Your task to perform on an android device: Show me popular videos on Youtube Image 0: 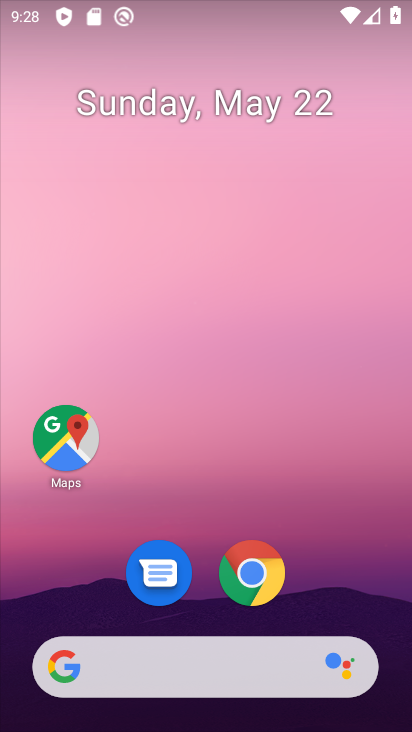
Step 0: drag from (340, 588) to (316, 254)
Your task to perform on an android device: Show me popular videos on Youtube Image 1: 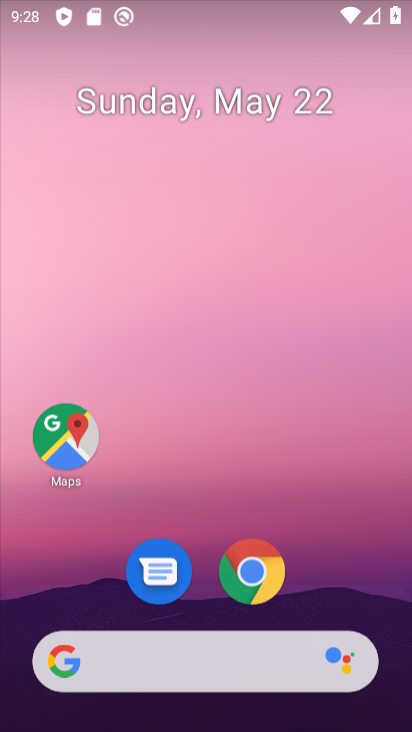
Step 1: drag from (392, 290) to (407, 332)
Your task to perform on an android device: Show me popular videos on Youtube Image 2: 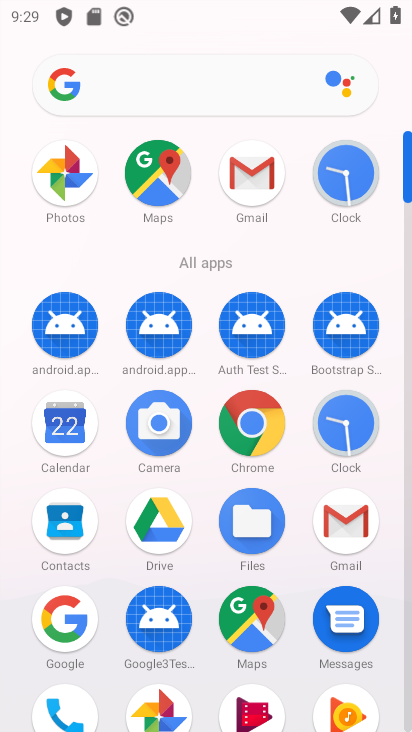
Step 2: click (408, 723)
Your task to perform on an android device: Show me popular videos on Youtube Image 3: 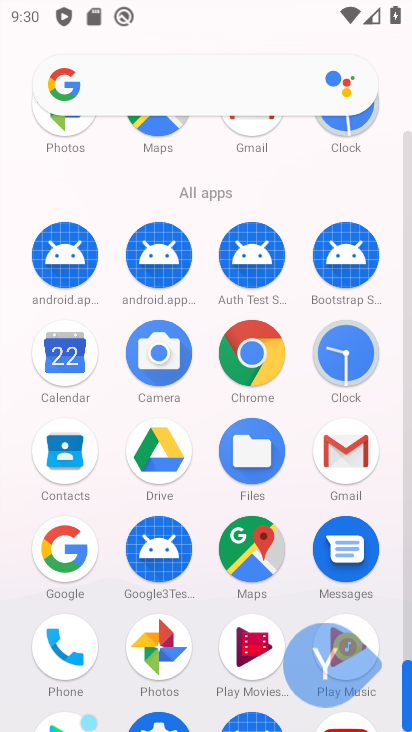
Step 3: click (408, 723)
Your task to perform on an android device: Show me popular videos on Youtube Image 4: 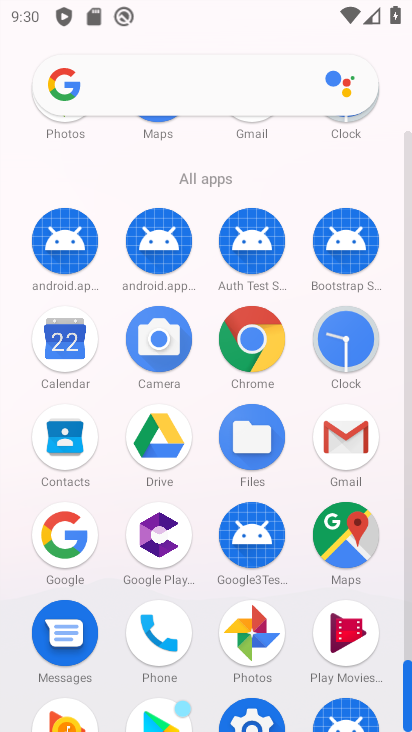
Step 4: click (340, 716)
Your task to perform on an android device: Show me popular videos on Youtube Image 5: 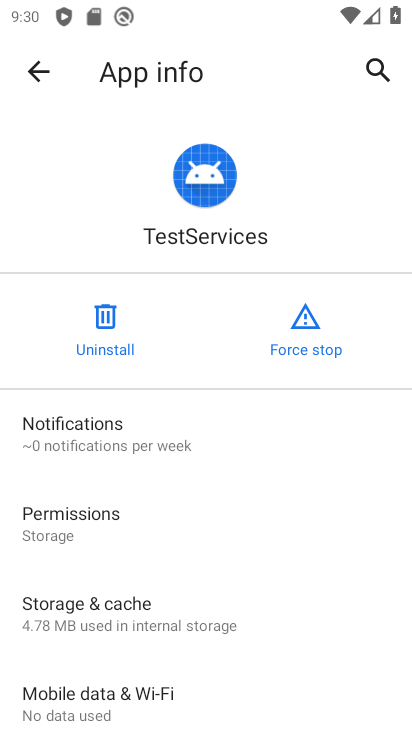
Step 5: click (49, 67)
Your task to perform on an android device: Show me popular videos on Youtube Image 6: 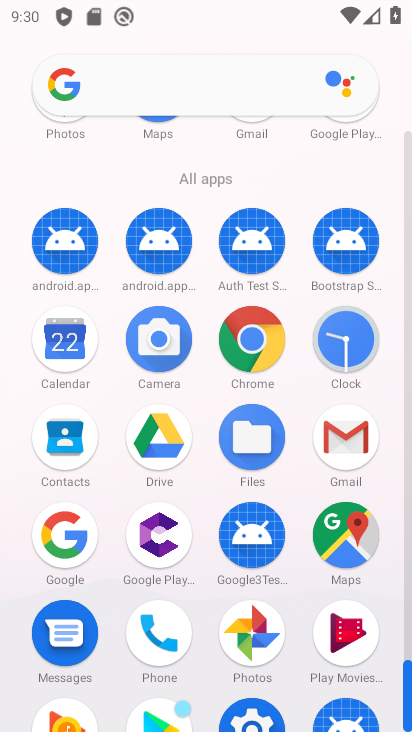
Step 6: drag from (406, 706) to (398, 606)
Your task to perform on an android device: Show me popular videos on Youtube Image 7: 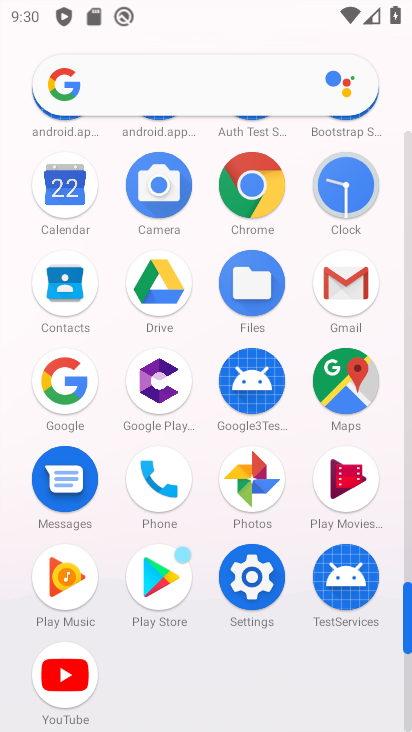
Step 7: click (93, 682)
Your task to perform on an android device: Show me popular videos on Youtube Image 8: 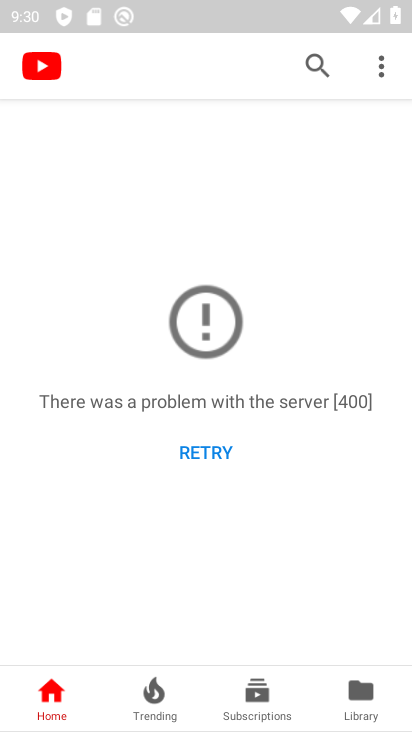
Step 8: task complete